Your task to perform on an android device: Go to CNN.com Image 0: 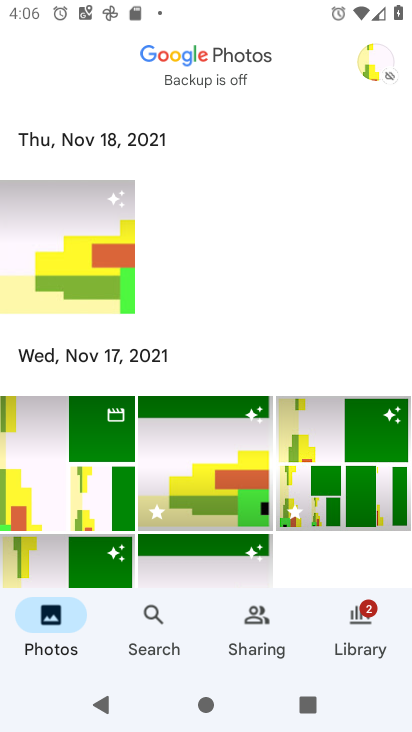
Step 0: press home button
Your task to perform on an android device: Go to CNN.com Image 1: 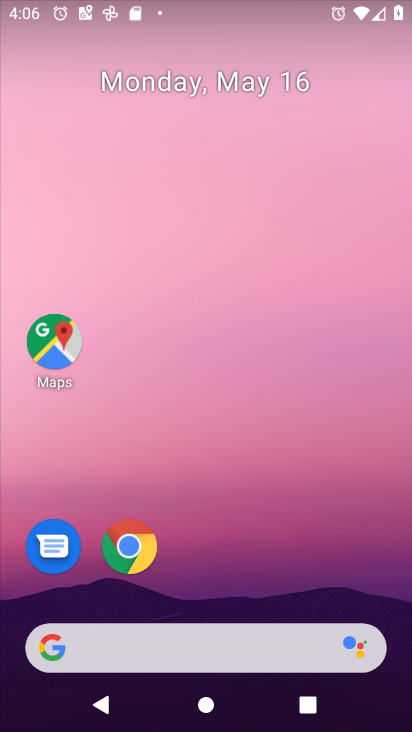
Step 1: drag from (330, 569) to (373, 100)
Your task to perform on an android device: Go to CNN.com Image 2: 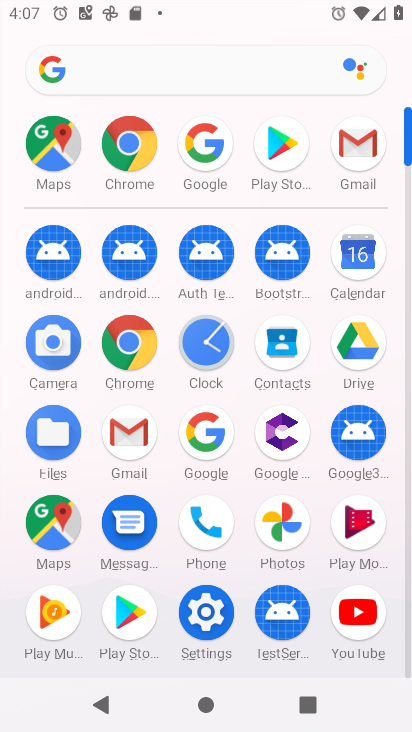
Step 2: click (132, 345)
Your task to perform on an android device: Go to CNN.com Image 3: 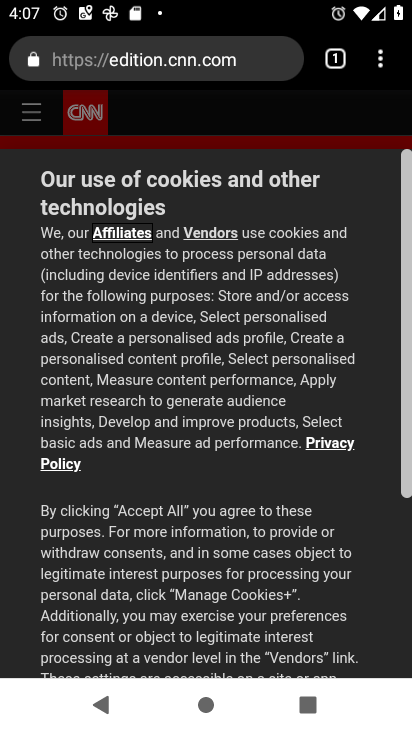
Step 3: click (190, 59)
Your task to perform on an android device: Go to CNN.com Image 4: 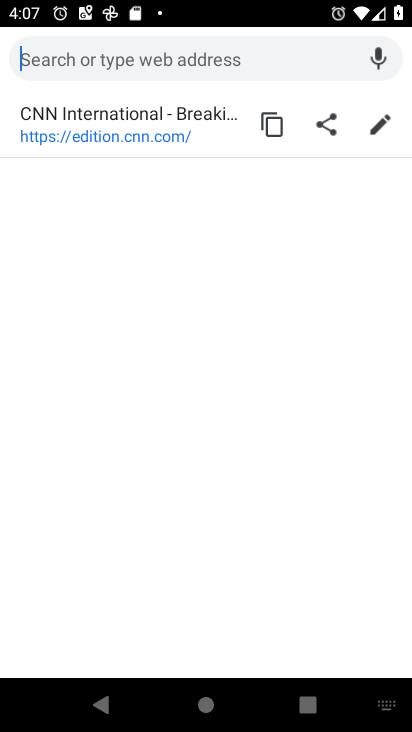
Step 4: type "cnn.com"
Your task to perform on an android device: Go to CNN.com Image 5: 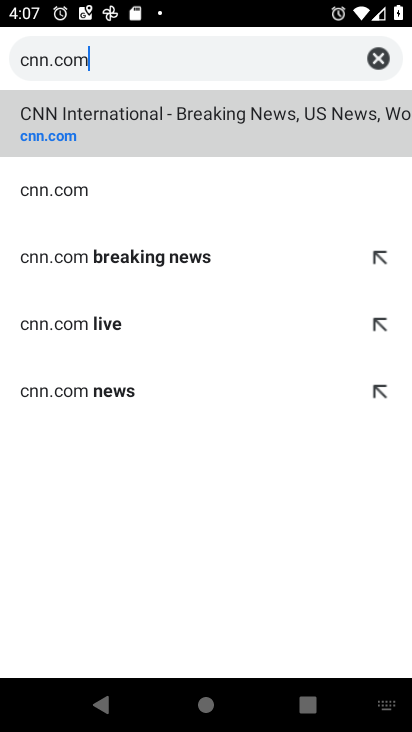
Step 5: click (87, 200)
Your task to perform on an android device: Go to CNN.com Image 6: 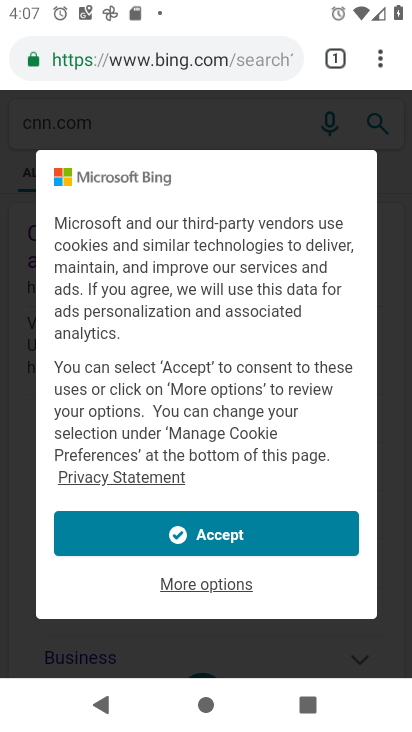
Step 6: task complete